Your task to perform on an android device: refresh tabs in the chrome app Image 0: 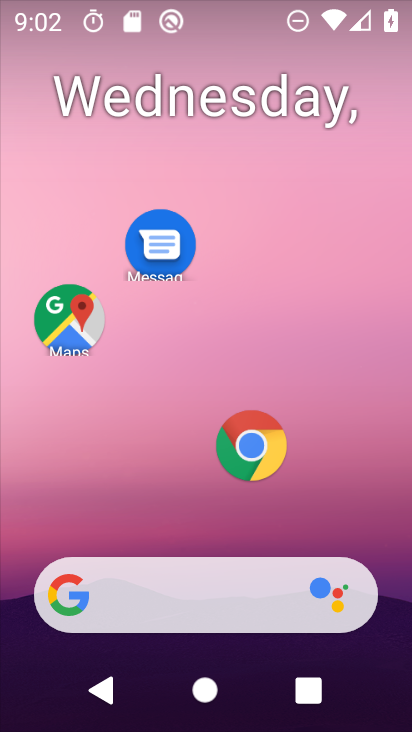
Step 0: click (251, 441)
Your task to perform on an android device: refresh tabs in the chrome app Image 1: 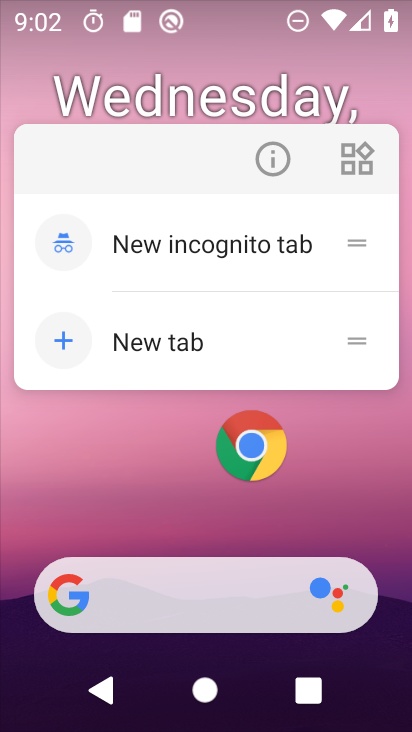
Step 1: click (251, 441)
Your task to perform on an android device: refresh tabs in the chrome app Image 2: 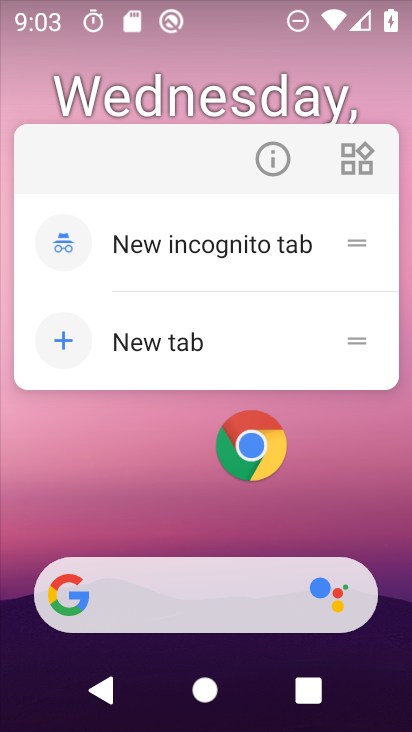
Step 2: click (311, 530)
Your task to perform on an android device: refresh tabs in the chrome app Image 3: 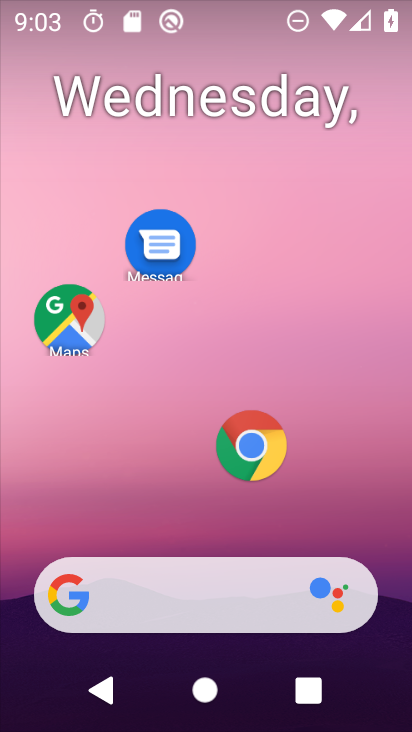
Step 3: click (251, 438)
Your task to perform on an android device: refresh tabs in the chrome app Image 4: 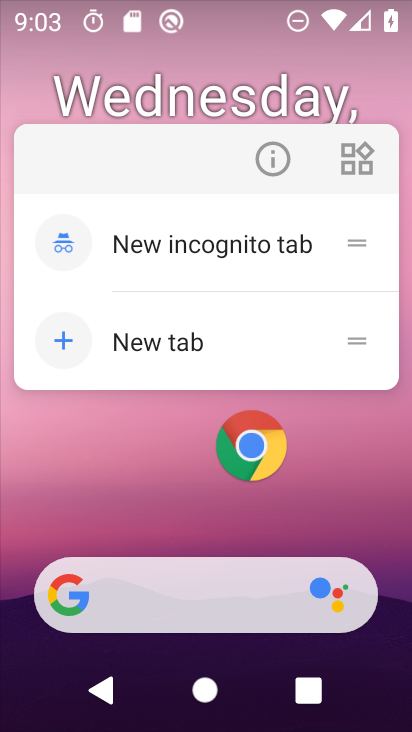
Step 4: click (246, 445)
Your task to perform on an android device: refresh tabs in the chrome app Image 5: 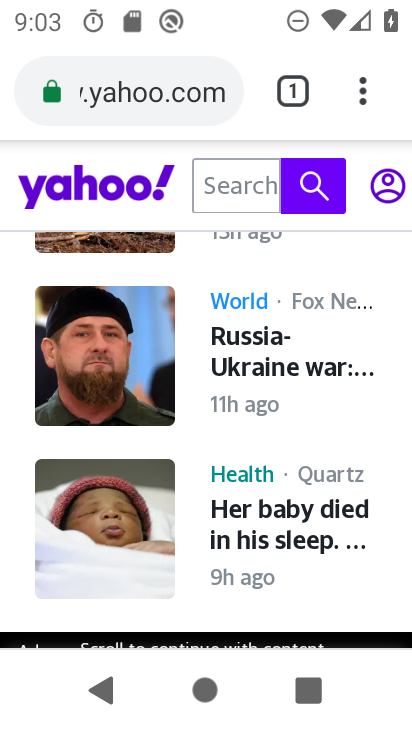
Step 5: click (361, 93)
Your task to perform on an android device: refresh tabs in the chrome app Image 6: 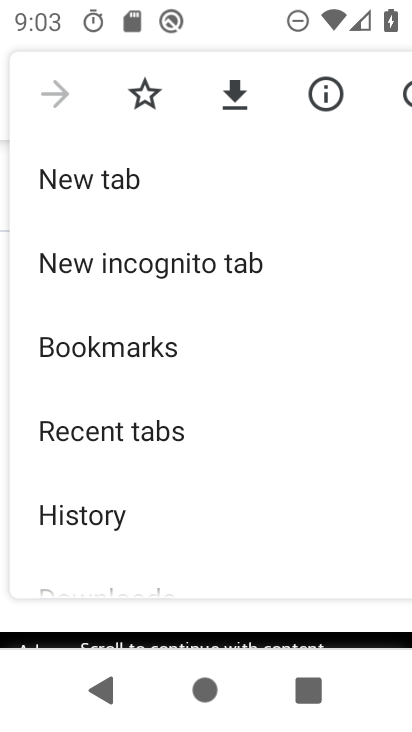
Step 6: click (409, 93)
Your task to perform on an android device: refresh tabs in the chrome app Image 7: 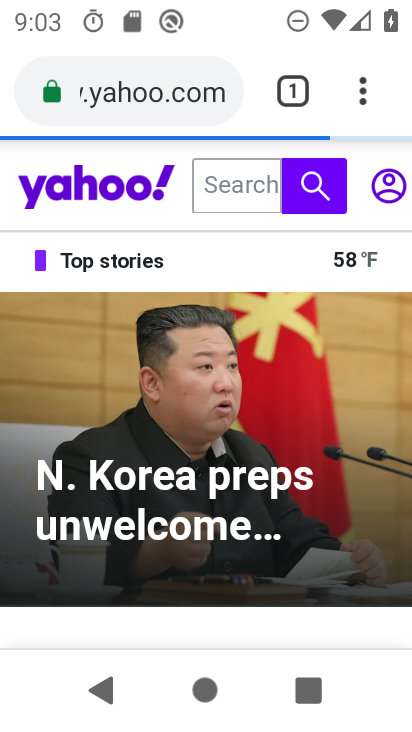
Step 7: task complete